Your task to perform on an android device: check storage Image 0: 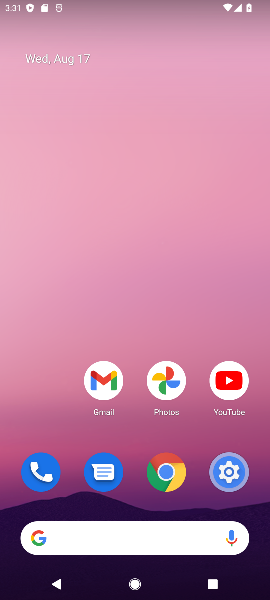
Step 0: click (222, 476)
Your task to perform on an android device: check storage Image 1: 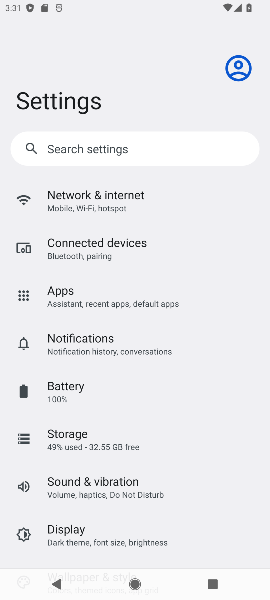
Step 1: click (107, 443)
Your task to perform on an android device: check storage Image 2: 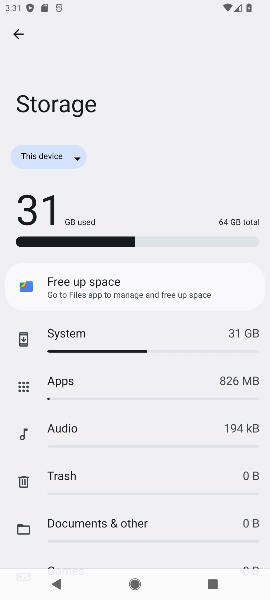
Step 2: task complete